Your task to perform on an android device: turn on the 12-hour format for clock Image 0: 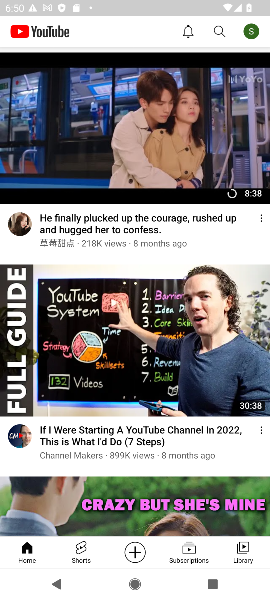
Step 0: press home button
Your task to perform on an android device: turn on the 12-hour format for clock Image 1: 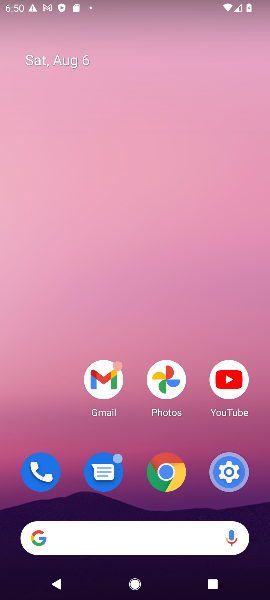
Step 1: drag from (191, 502) to (195, 71)
Your task to perform on an android device: turn on the 12-hour format for clock Image 2: 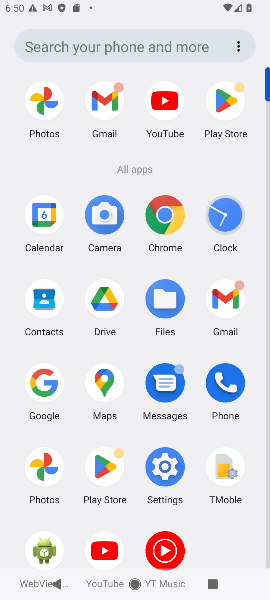
Step 2: click (225, 215)
Your task to perform on an android device: turn on the 12-hour format for clock Image 3: 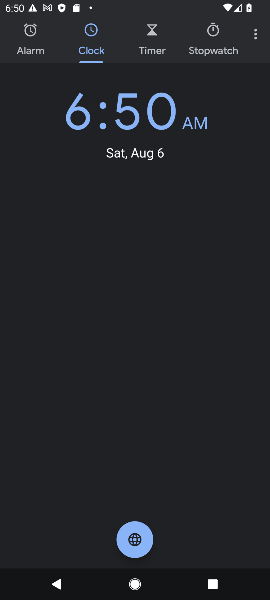
Step 3: click (251, 37)
Your task to perform on an android device: turn on the 12-hour format for clock Image 4: 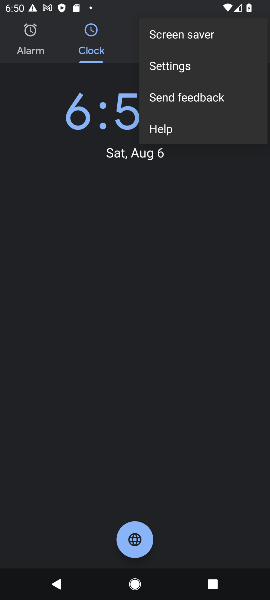
Step 4: click (164, 69)
Your task to perform on an android device: turn on the 12-hour format for clock Image 5: 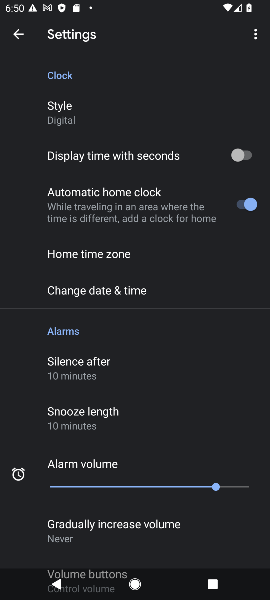
Step 5: click (103, 286)
Your task to perform on an android device: turn on the 12-hour format for clock Image 6: 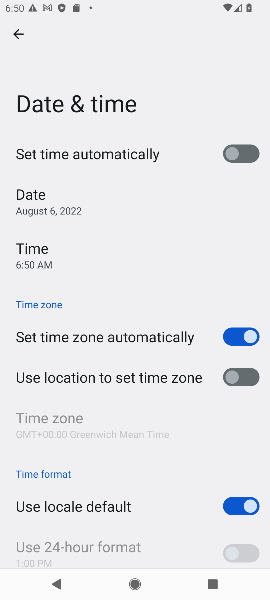
Step 6: task complete